Your task to perform on an android device: Go to Google Image 0: 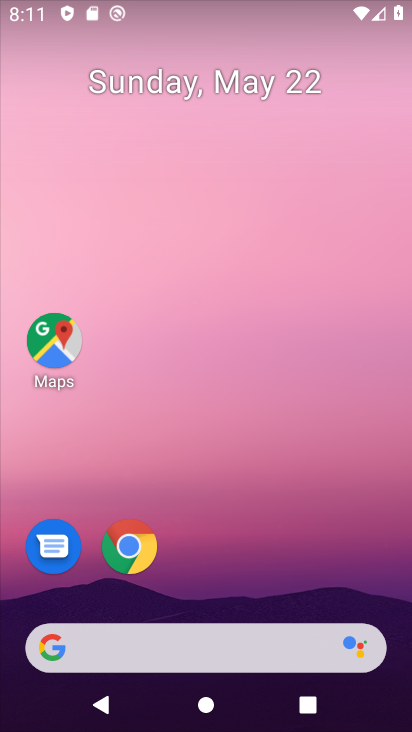
Step 0: click (153, 649)
Your task to perform on an android device: Go to Google Image 1: 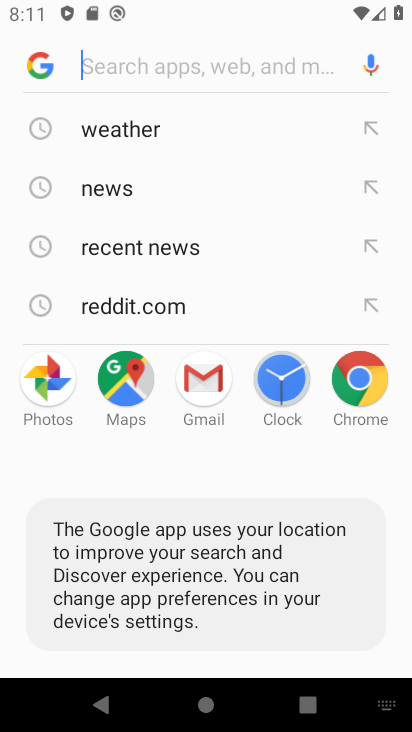
Step 1: click (35, 60)
Your task to perform on an android device: Go to Google Image 2: 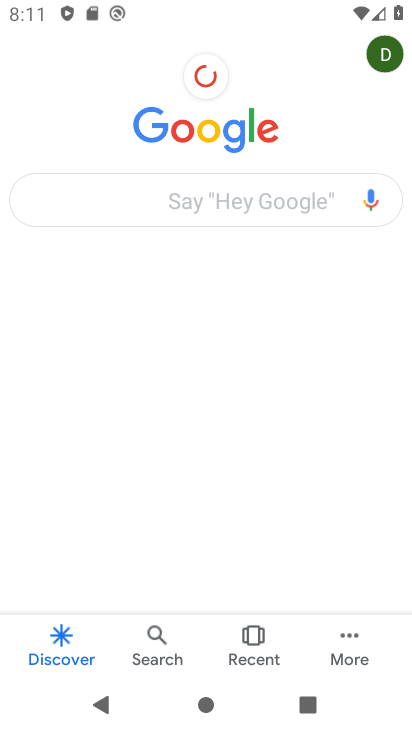
Step 2: task complete